Your task to perform on an android device: empty trash in the gmail app Image 0: 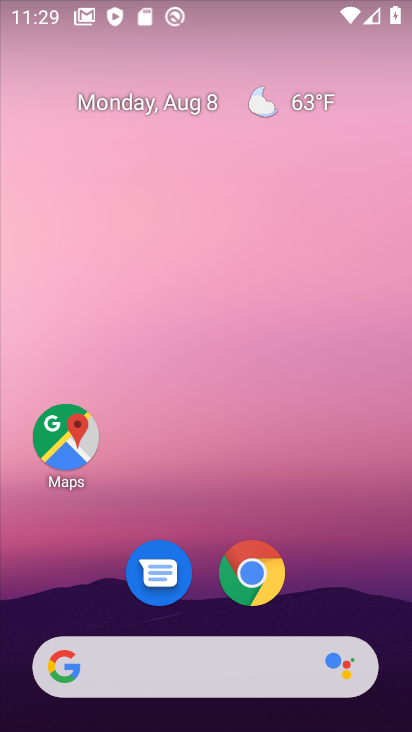
Step 0: drag from (153, 630) to (168, 159)
Your task to perform on an android device: empty trash in the gmail app Image 1: 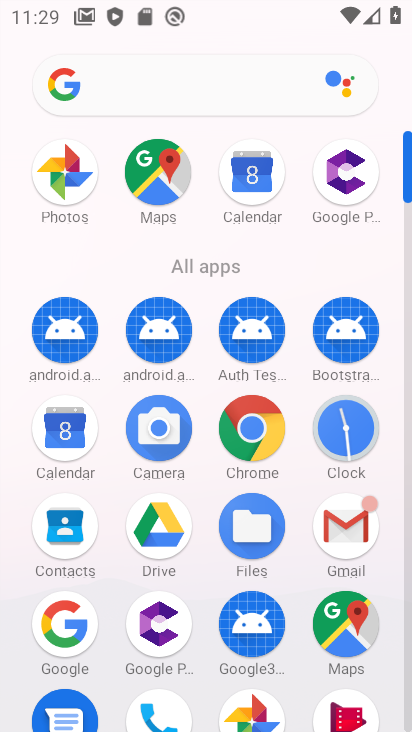
Step 1: click (350, 538)
Your task to perform on an android device: empty trash in the gmail app Image 2: 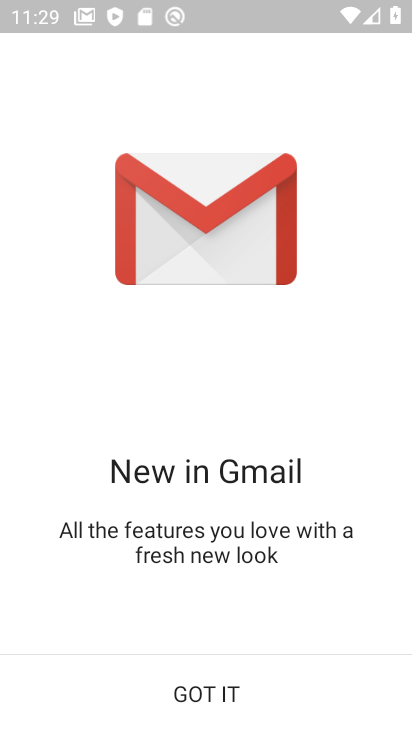
Step 2: click (281, 697)
Your task to perform on an android device: empty trash in the gmail app Image 3: 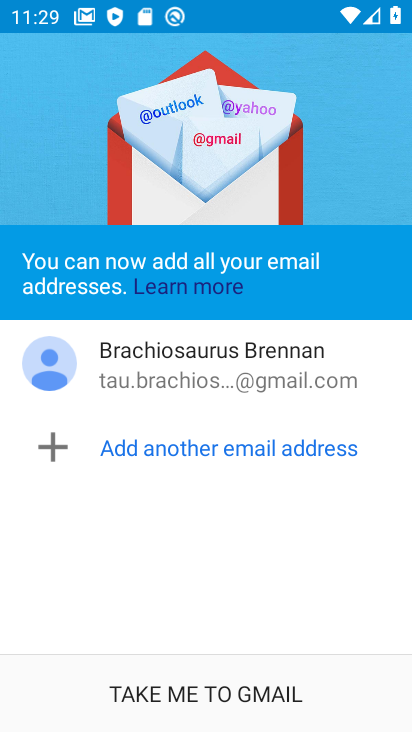
Step 3: click (278, 696)
Your task to perform on an android device: empty trash in the gmail app Image 4: 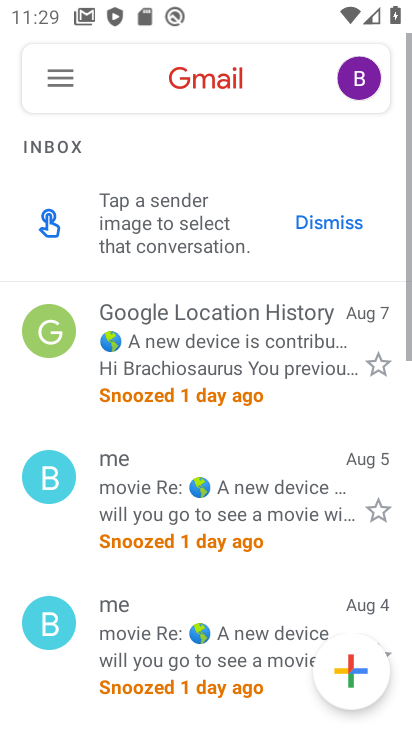
Step 4: click (53, 79)
Your task to perform on an android device: empty trash in the gmail app Image 5: 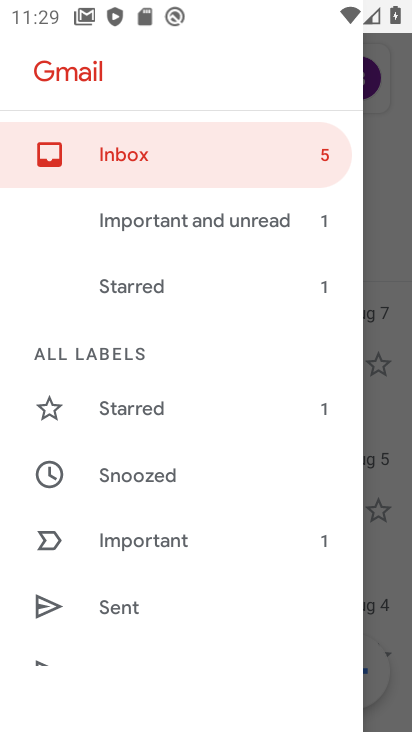
Step 5: drag from (151, 629) to (165, 322)
Your task to perform on an android device: empty trash in the gmail app Image 6: 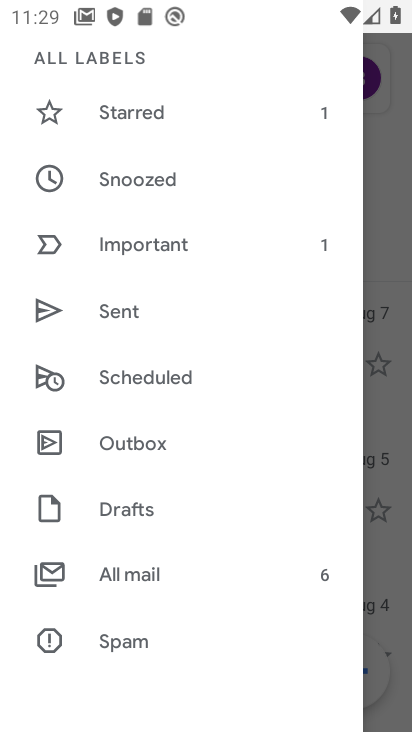
Step 6: drag from (153, 610) to (159, 269)
Your task to perform on an android device: empty trash in the gmail app Image 7: 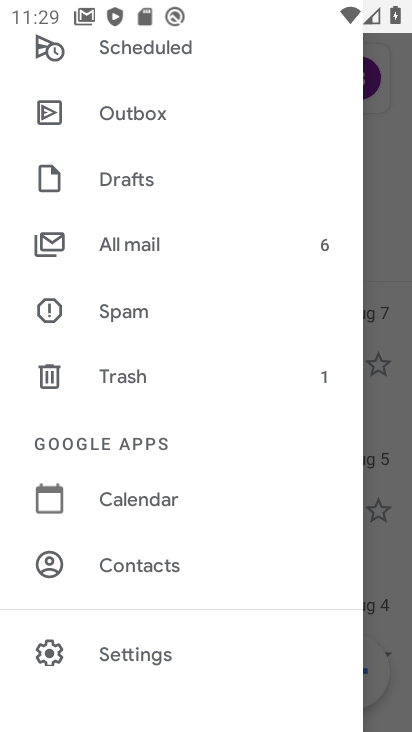
Step 7: click (123, 379)
Your task to perform on an android device: empty trash in the gmail app Image 8: 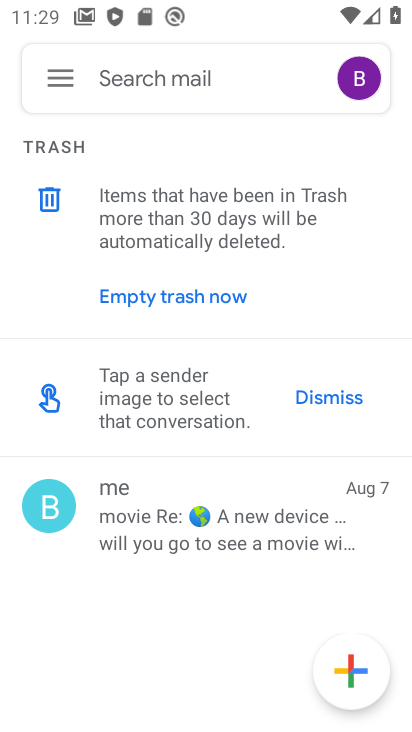
Step 8: task complete